Your task to perform on an android device: turn off improve location accuracy Image 0: 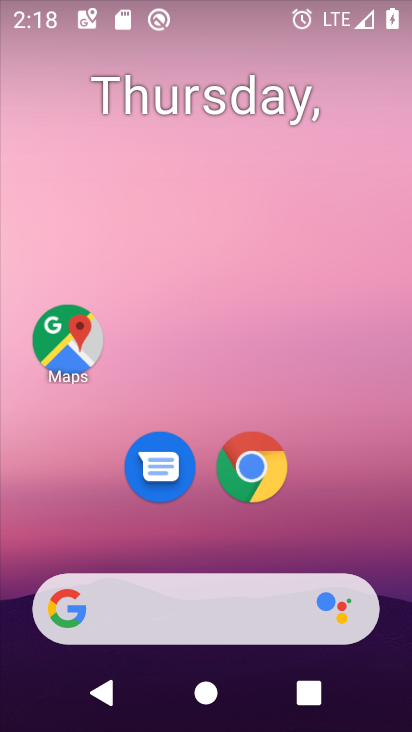
Step 0: drag from (196, 538) to (257, 24)
Your task to perform on an android device: turn off improve location accuracy Image 1: 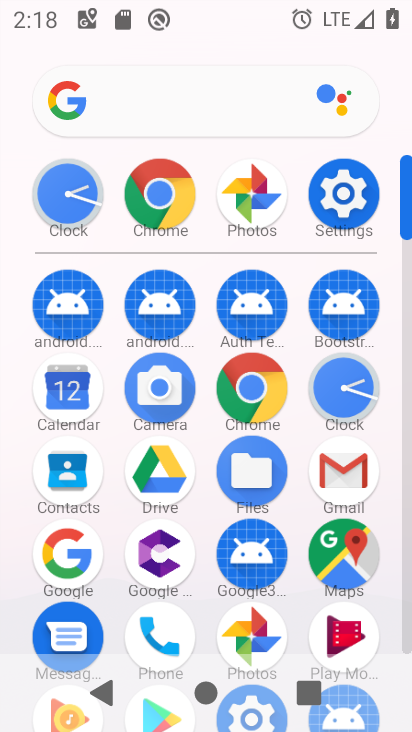
Step 1: click (326, 194)
Your task to perform on an android device: turn off improve location accuracy Image 2: 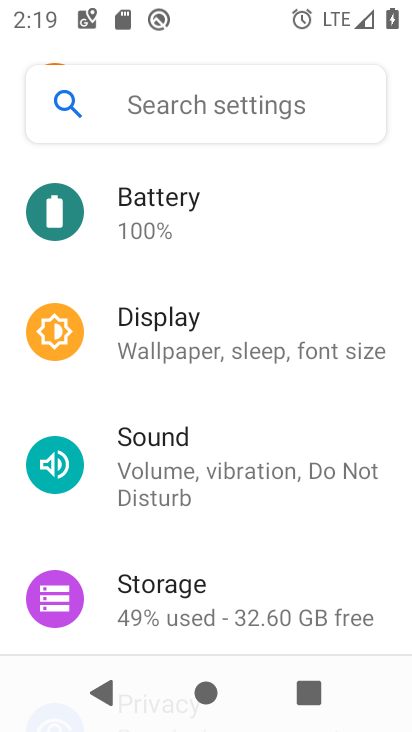
Step 2: drag from (274, 529) to (214, 70)
Your task to perform on an android device: turn off improve location accuracy Image 3: 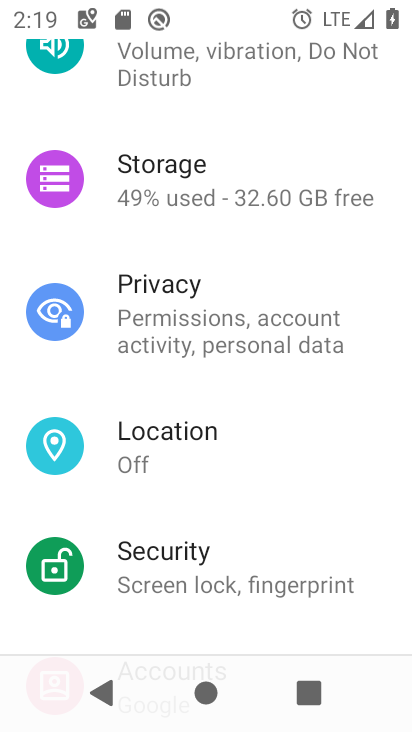
Step 3: click (162, 453)
Your task to perform on an android device: turn off improve location accuracy Image 4: 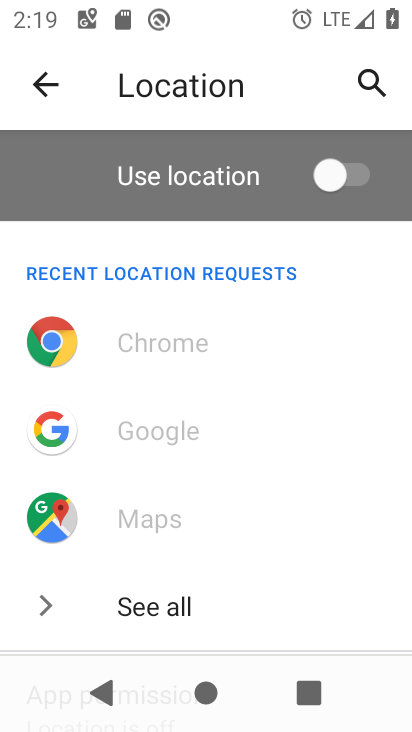
Step 4: drag from (196, 527) to (171, 64)
Your task to perform on an android device: turn off improve location accuracy Image 5: 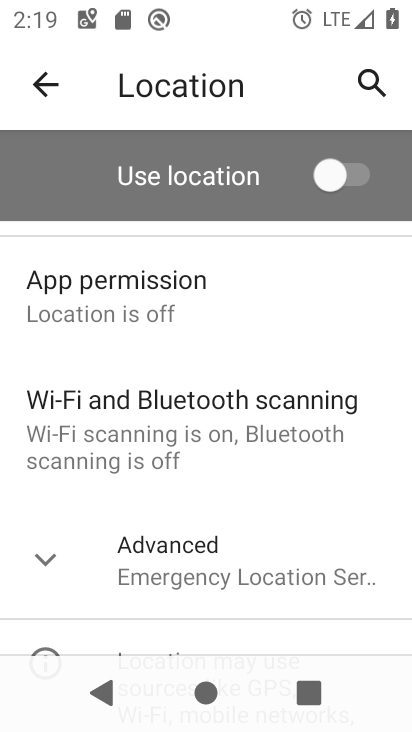
Step 5: click (166, 577)
Your task to perform on an android device: turn off improve location accuracy Image 6: 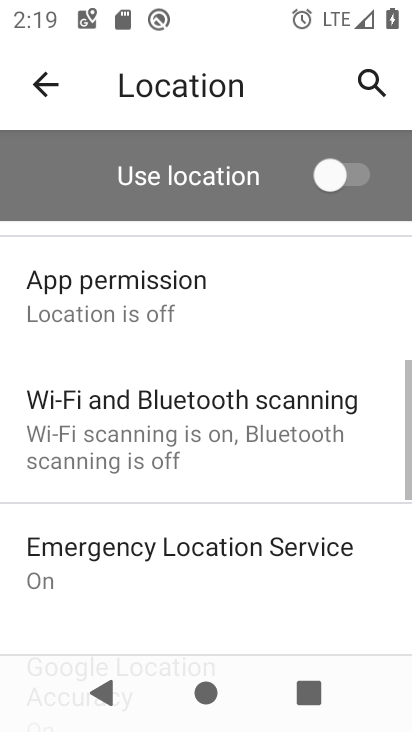
Step 6: drag from (188, 604) to (119, 174)
Your task to perform on an android device: turn off improve location accuracy Image 7: 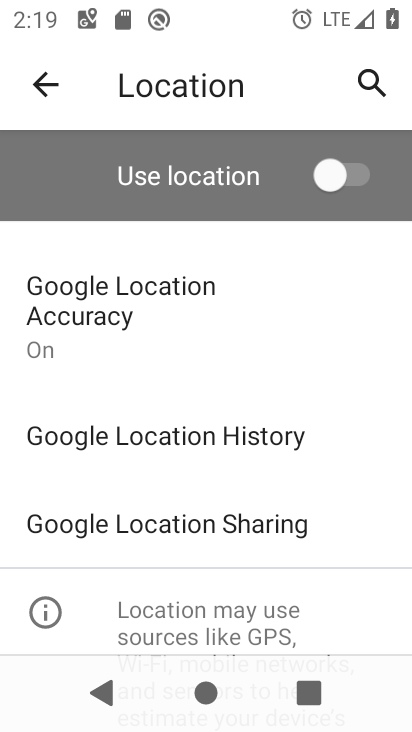
Step 7: click (130, 323)
Your task to perform on an android device: turn off improve location accuracy Image 8: 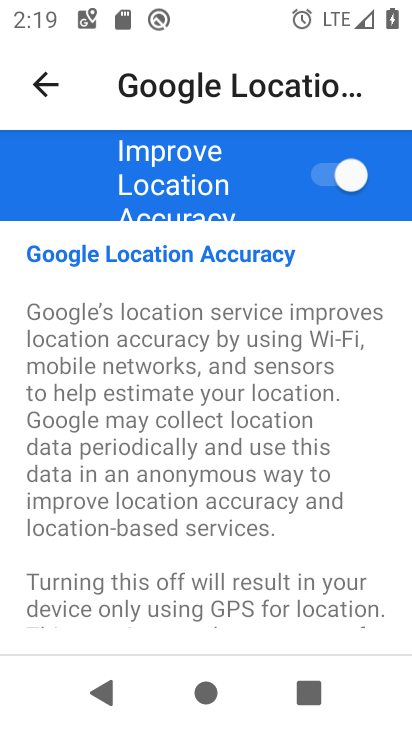
Step 8: click (340, 174)
Your task to perform on an android device: turn off improve location accuracy Image 9: 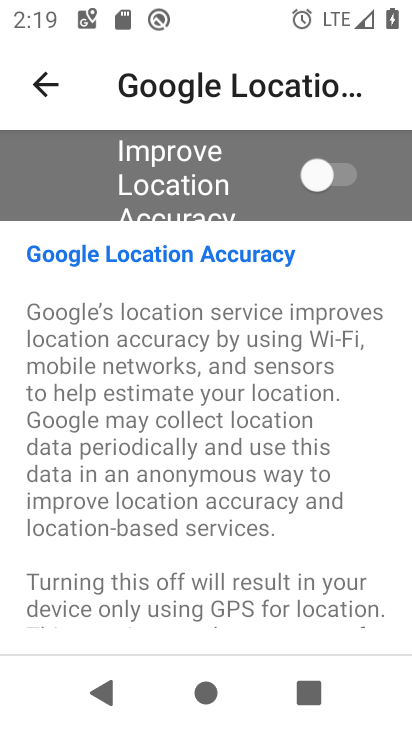
Step 9: task complete